Your task to perform on an android device: Go to eBay Image 0: 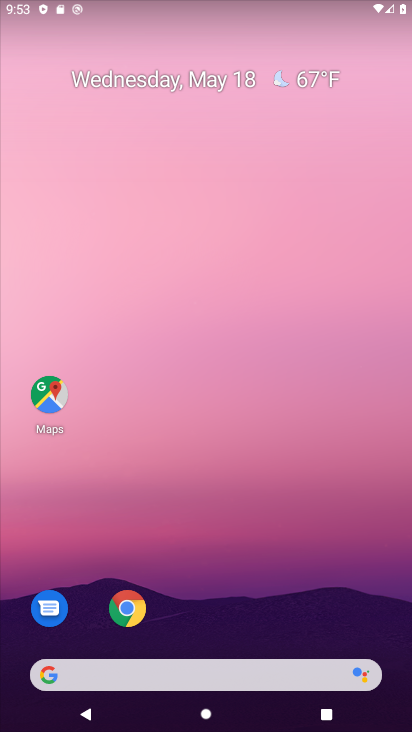
Step 0: click (127, 608)
Your task to perform on an android device: Go to eBay Image 1: 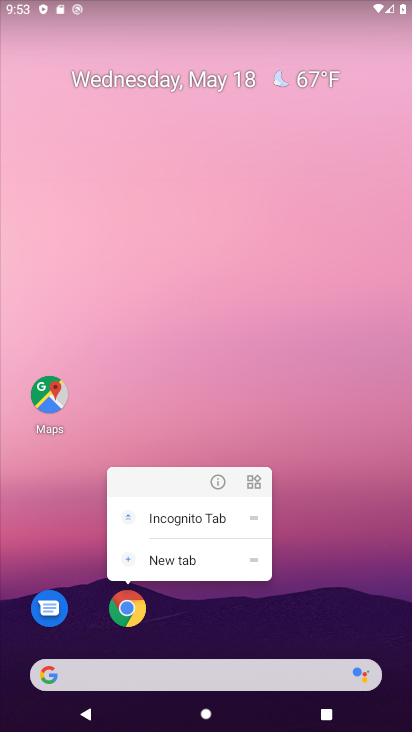
Step 1: click (133, 622)
Your task to perform on an android device: Go to eBay Image 2: 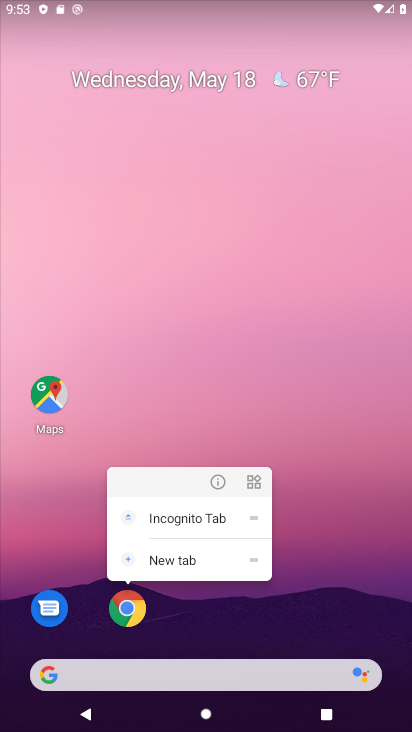
Step 2: click (134, 610)
Your task to perform on an android device: Go to eBay Image 3: 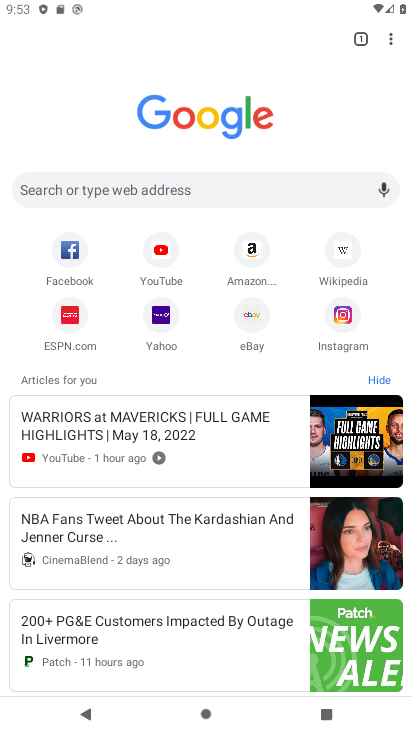
Step 3: click (255, 323)
Your task to perform on an android device: Go to eBay Image 4: 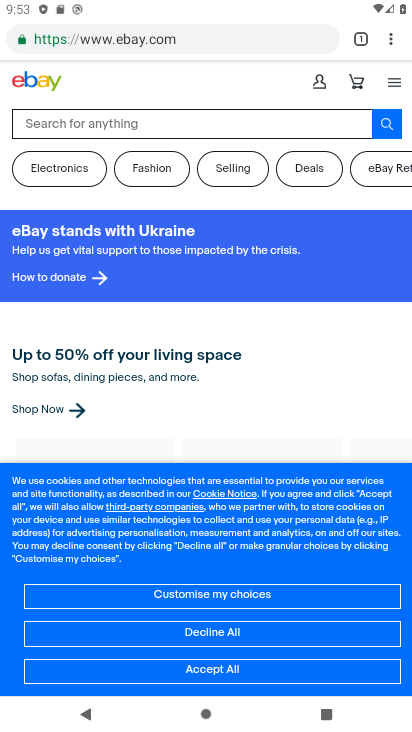
Step 4: task complete